Your task to perform on an android device: Open privacy settings Image 0: 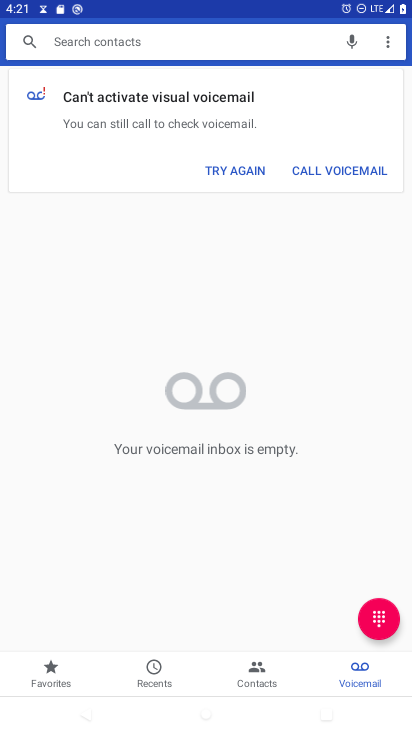
Step 0: press home button
Your task to perform on an android device: Open privacy settings Image 1: 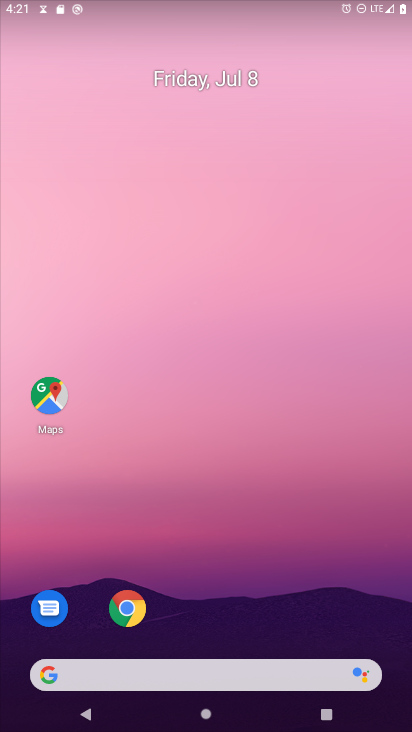
Step 1: drag from (305, 658) to (281, 30)
Your task to perform on an android device: Open privacy settings Image 2: 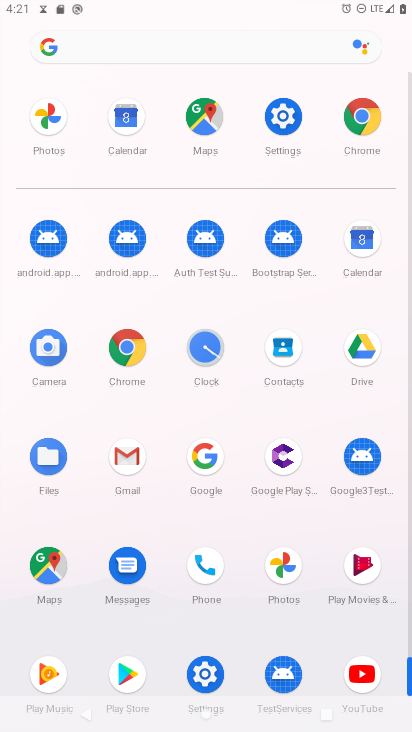
Step 2: click (274, 102)
Your task to perform on an android device: Open privacy settings Image 3: 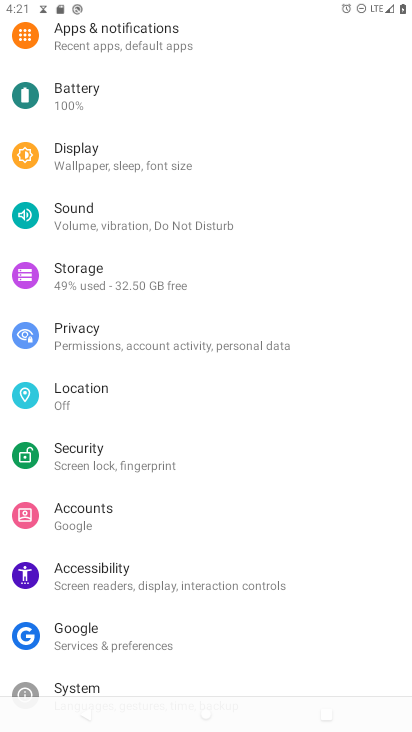
Step 3: drag from (232, 164) to (222, 531)
Your task to perform on an android device: Open privacy settings Image 4: 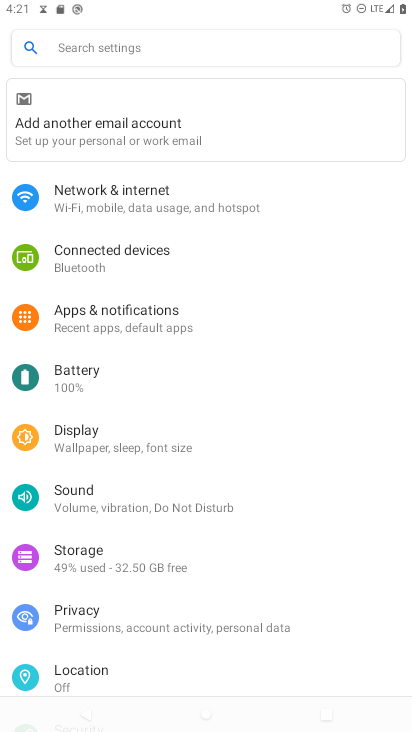
Step 4: click (182, 620)
Your task to perform on an android device: Open privacy settings Image 5: 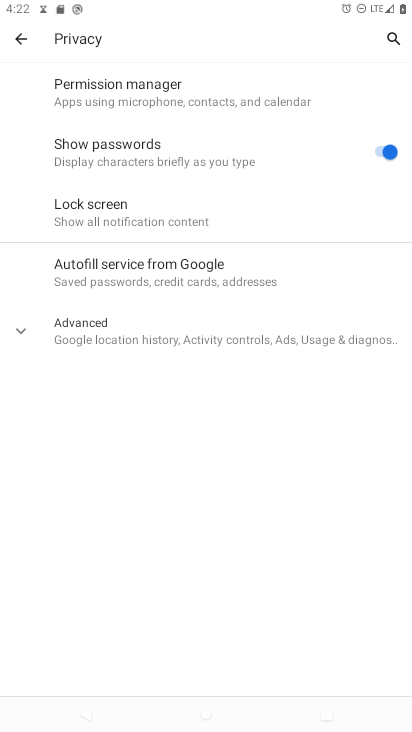
Step 5: task complete